Your task to perform on an android device: Go to Google maps Image 0: 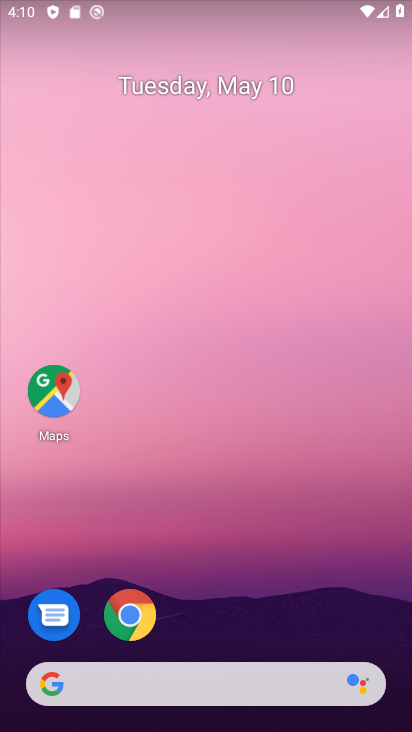
Step 0: click (64, 383)
Your task to perform on an android device: Go to Google maps Image 1: 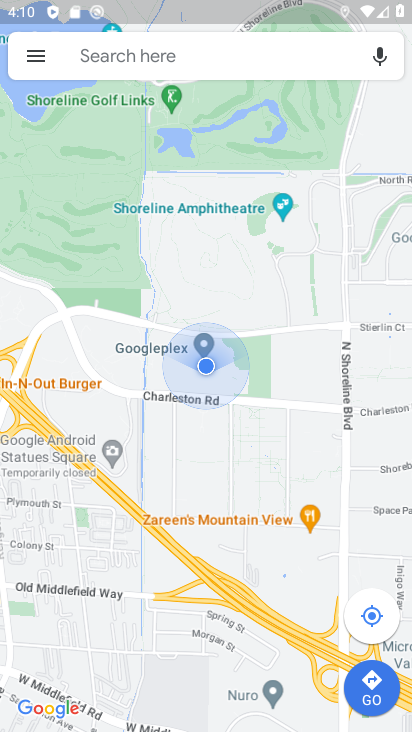
Step 1: task complete